Your task to perform on an android device: show emergency info Image 0: 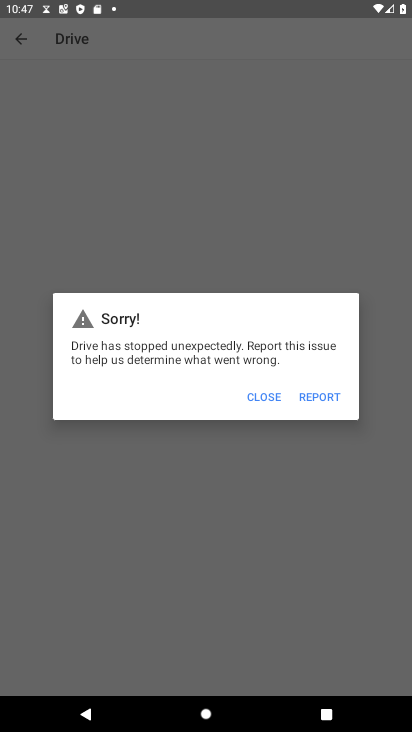
Step 0: press home button
Your task to perform on an android device: show emergency info Image 1: 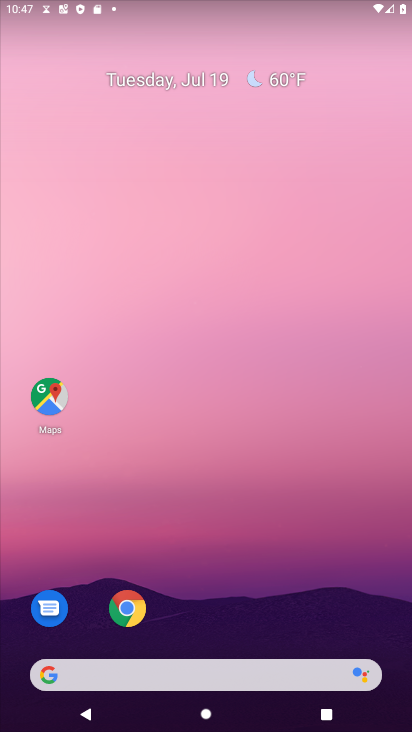
Step 1: drag from (293, 610) to (249, 188)
Your task to perform on an android device: show emergency info Image 2: 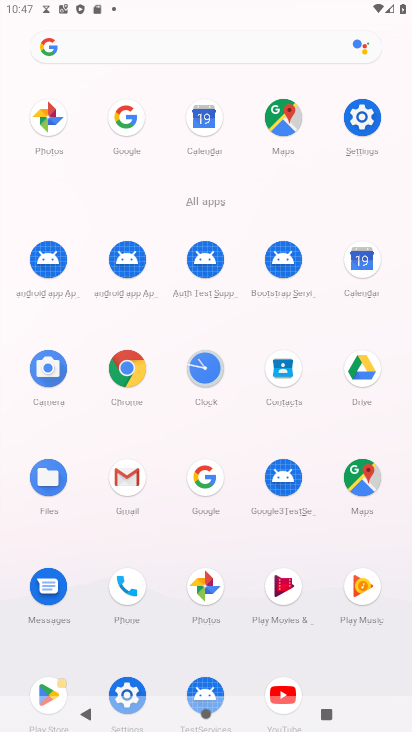
Step 2: click (351, 114)
Your task to perform on an android device: show emergency info Image 3: 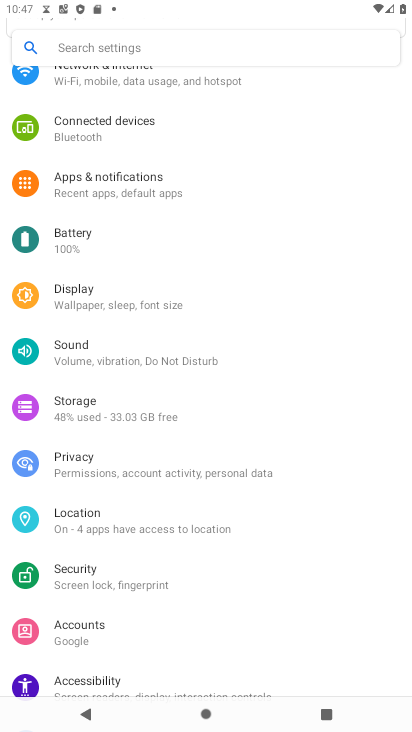
Step 3: drag from (179, 664) to (183, 385)
Your task to perform on an android device: show emergency info Image 4: 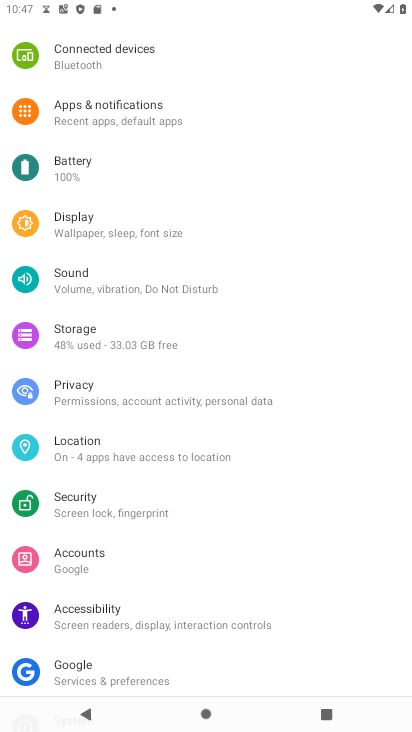
Step 4: drag from (192, 672) to (192, 258)
Your task to perform on an android device: show emergency info Image 5: 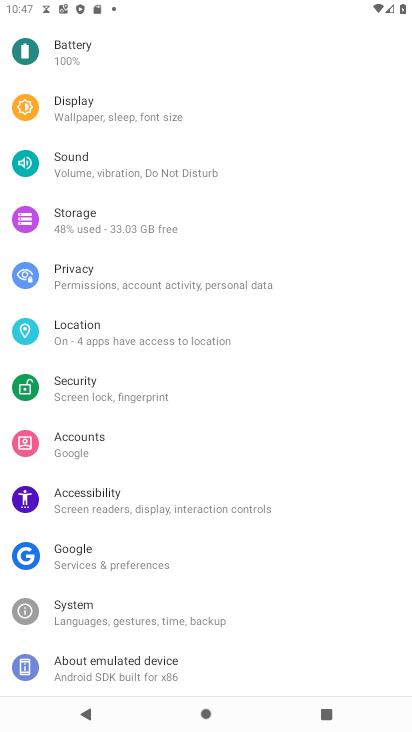
Step 5: click (140, 676)
Your task to perform on an android device: show emergency info Image 6: 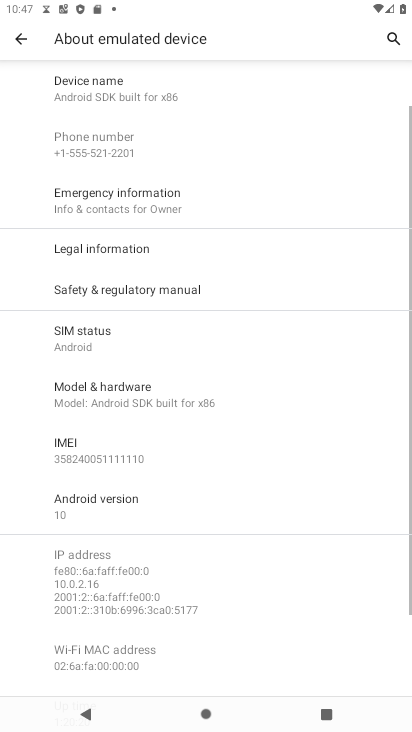
Step 6: click (187, 189)
Your task to perform on an android device: show emergency info Image 7: 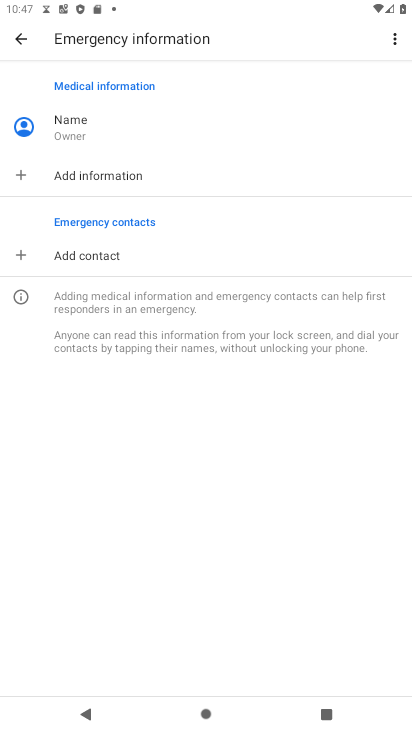
Step 7: task complete